Your task to perform on an android device: toggle priority inbox in the gmail app Image 0: 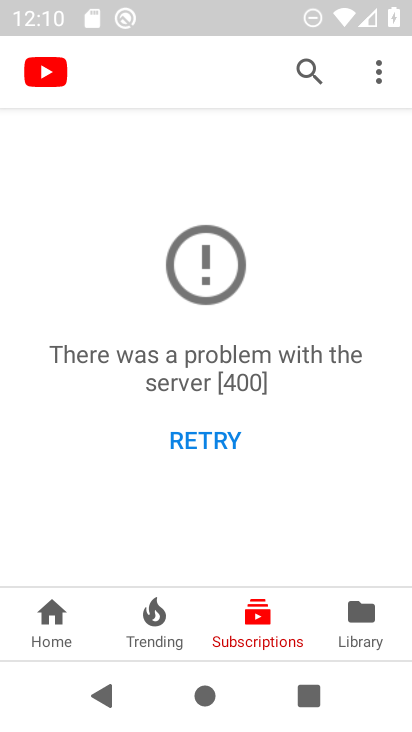
Step 0: press home button
Your task to perform on an android device: toggle priority inbox in the gmail app Image 1: 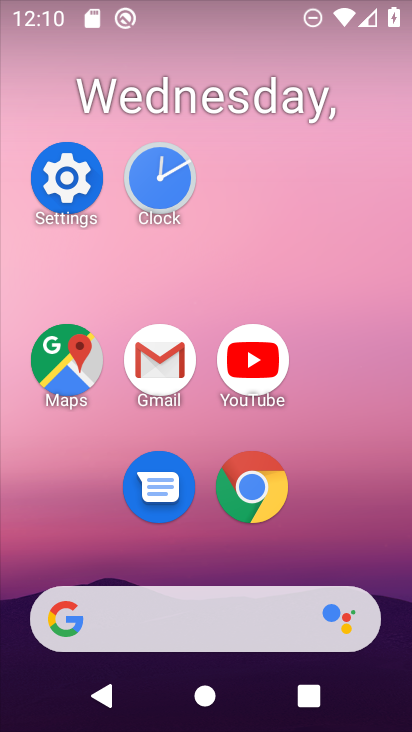
Step 1: click (174, 362)
Your task to perform on an android device: toggle priority inbox in the gmail app Image 2: 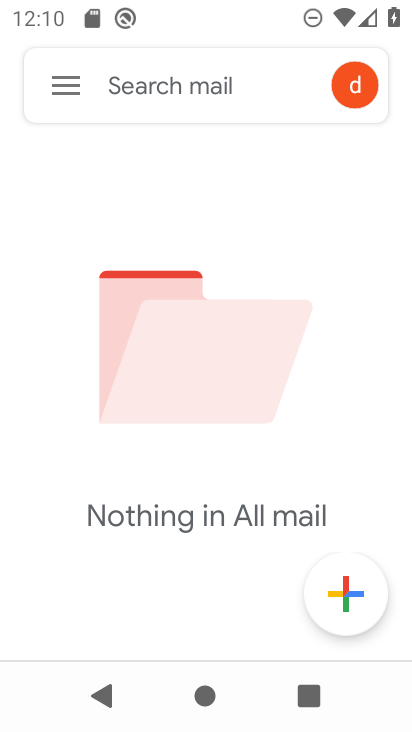
Step 2: click (60, 82)
Your task to perform on an android device: toggle priority inbox in the gmail app Image 3: 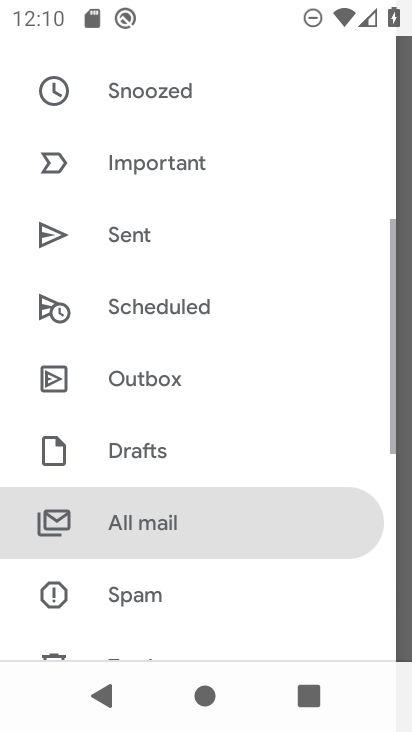
Step 3: drag from (188, 557) to (205, 140)
Your task to perform on an android device: toggle priority inbox in the gmail app Image 4: 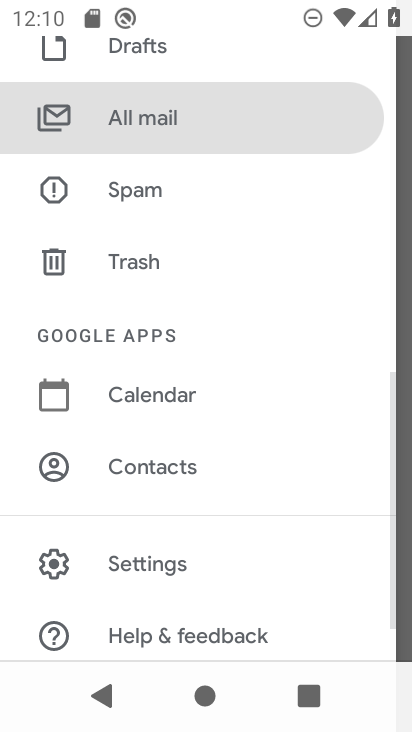
Step 4: click (158, 569)
Your task to perform on an android device: toggle priority inbox in the gmail app Image 5: 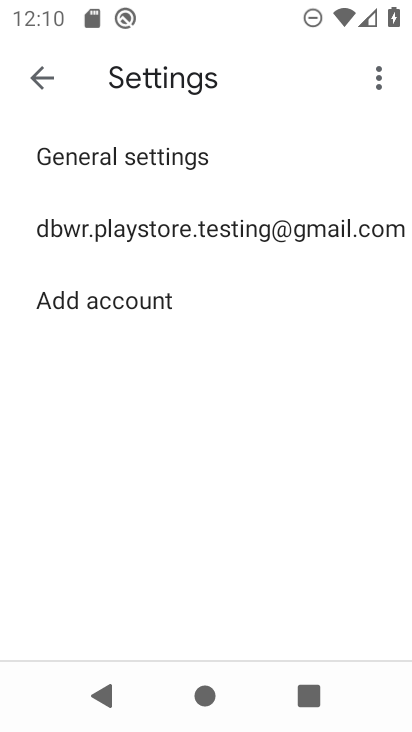
Step 5: click (194, 225)
Your task to perform on an android device: toggle priority inbox in the gmail app Image 6: 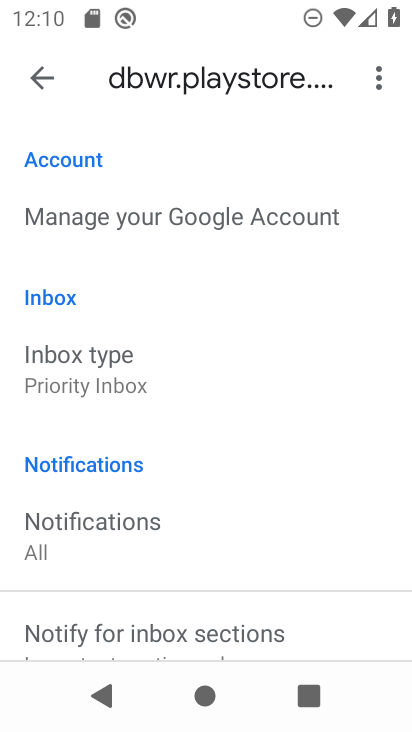
Step 6: click (167, 358)
Your task to perform on an android device: toggle priority inbox in the gmail app Image 7: 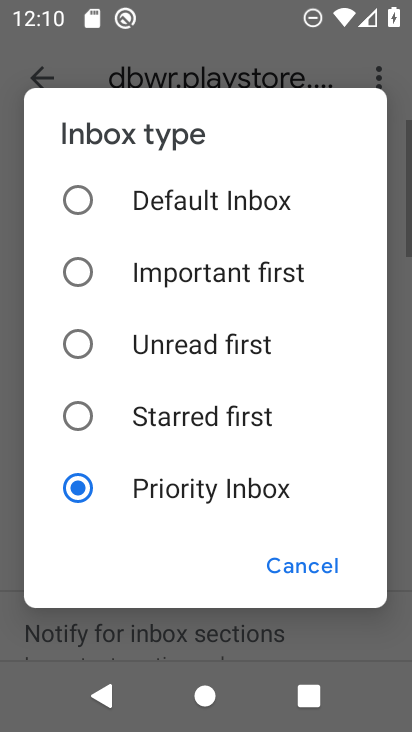
Step 7: click (213, 196)
Your task to perform on an android device: toggle priority inbox in the gmail app Image 8: 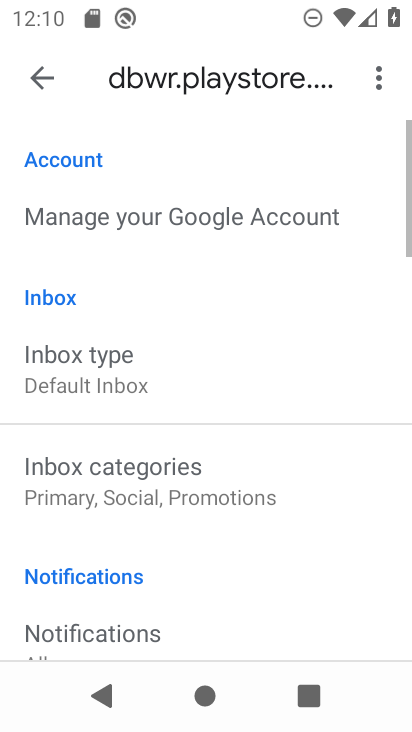
Step 8: task complete